Your task to perform on an android device: Open maps Image 0: 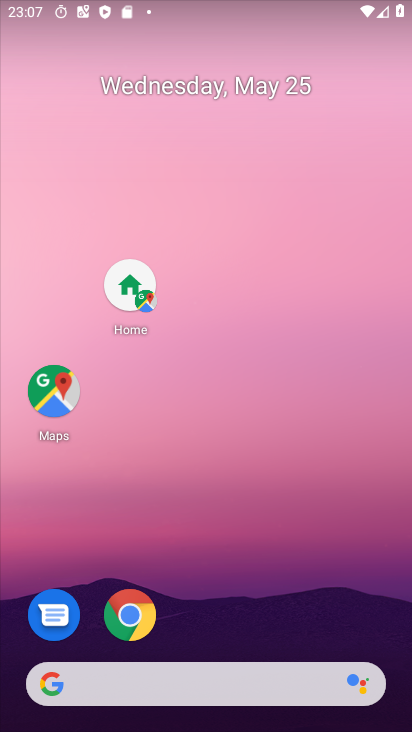
Step 0: click (47, 388)
Your task to perform on an android device: Open maps Image 1: 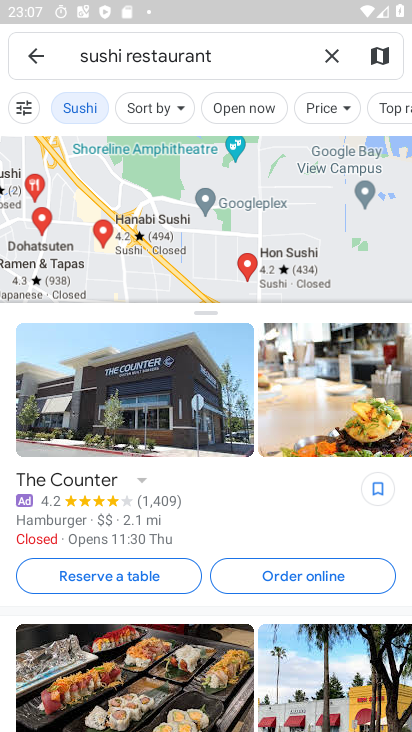
Step 1: click (333, 51)
Your task to perform on an android device: Open maps Image 2: 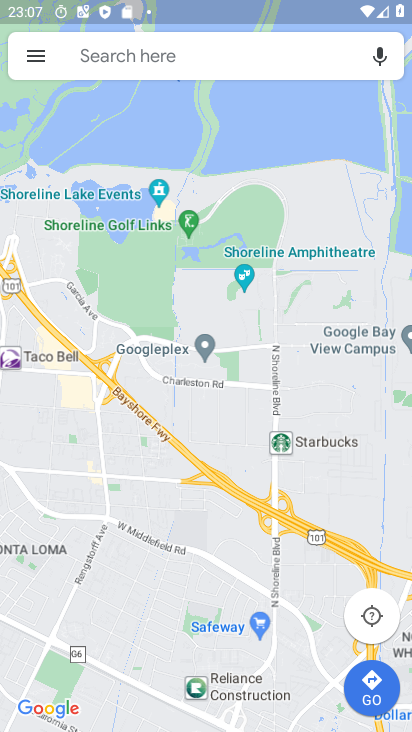
Step 2: task complete